Your task to perform on an android device: Open calendar and show me the second week of next month Image 0: 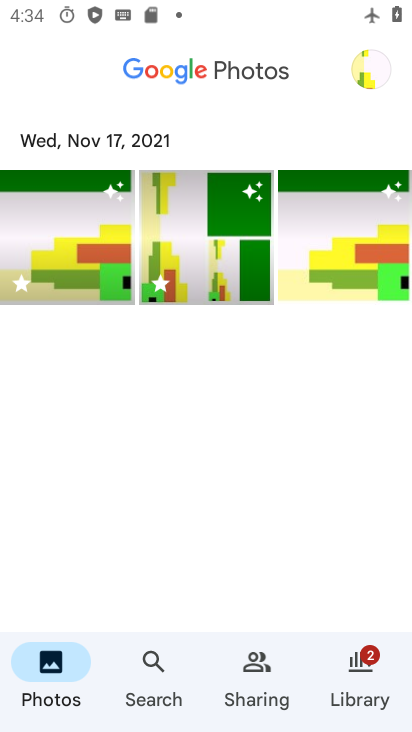
Step 0: press home button
Your task to perform on an android device: Open calendar and show me the second week of next month Image 1: 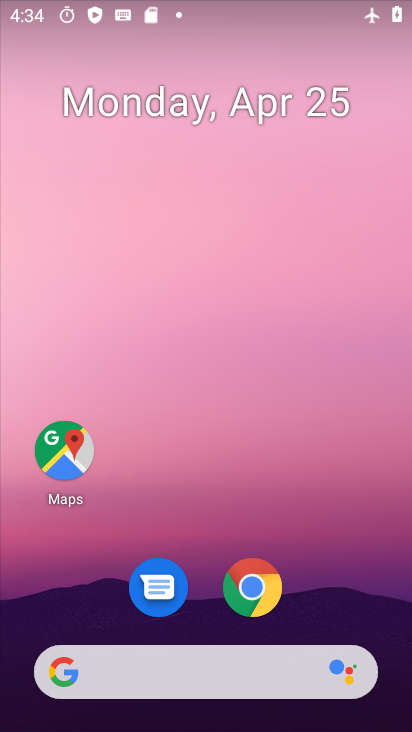
Step 1: drag from (358, 588) to (323, 176)
Your task to perform on an android device: Open calendar and show me the second week of next month Image 2: 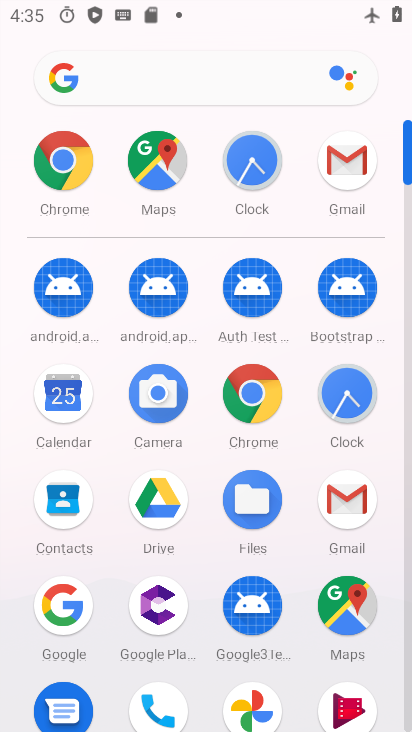
Step 2: click (65, 407)
Your task to perform on an android device: Open calendar and show me the second week of next month Image 3: 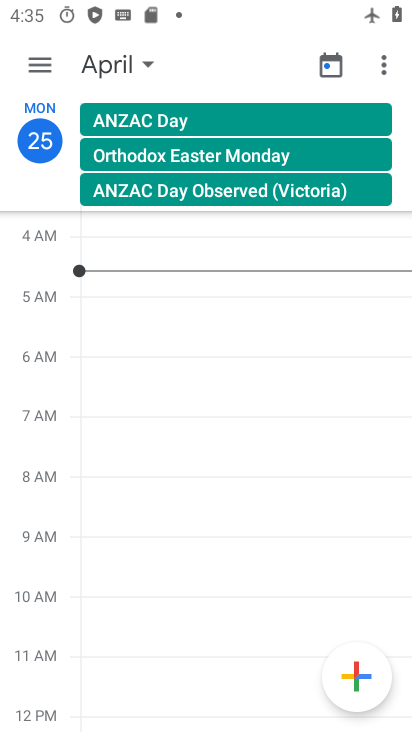
Step 3: click (92, 62)
Your task to perform on an android device: Open calendar and show me the second week of next month Image 4: 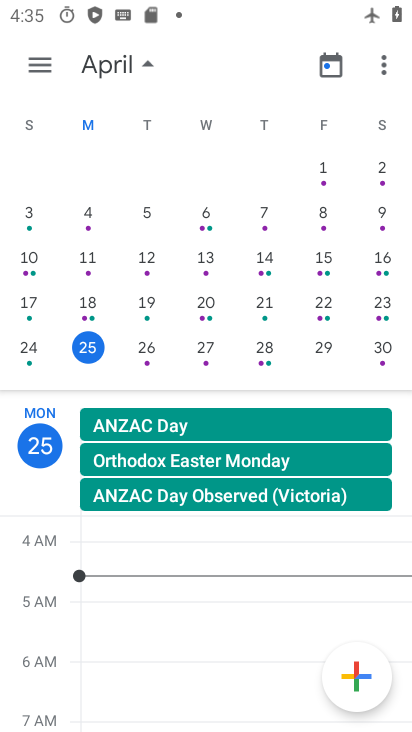
Step 4: drag from (363, 292) to (11, 304)
Your task to perform on an android device: Open calendar and show me the second week of next month Image 5: 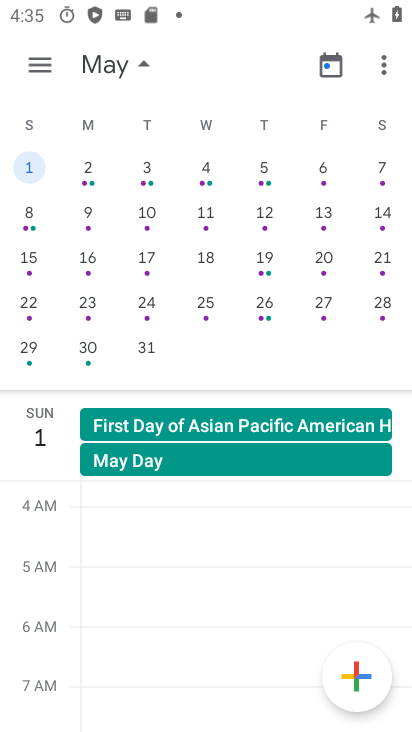
Step 5: click (145, 217)
Your task to perform on an android device: Open calendar and show me the second week of next month Image 6: 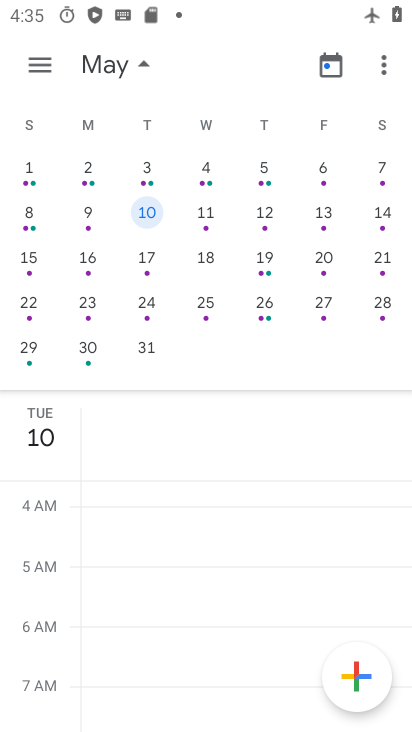
Step 6: task complete